Your task to perform on an android device: What's the news? Image 0: 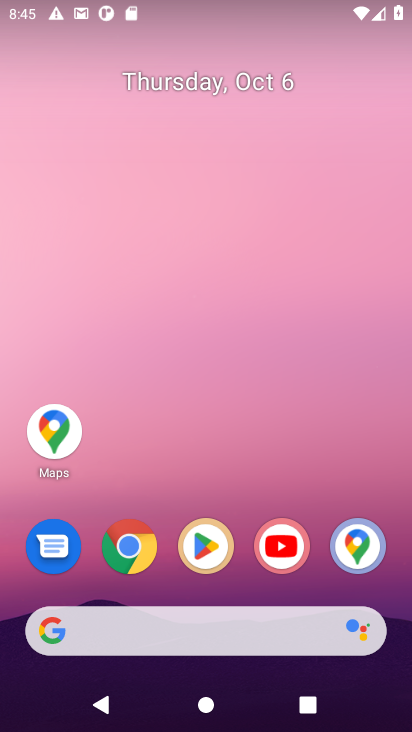
Step 0: click (134, 545)
Your task to perform on an android device: What's the news? Image 1: 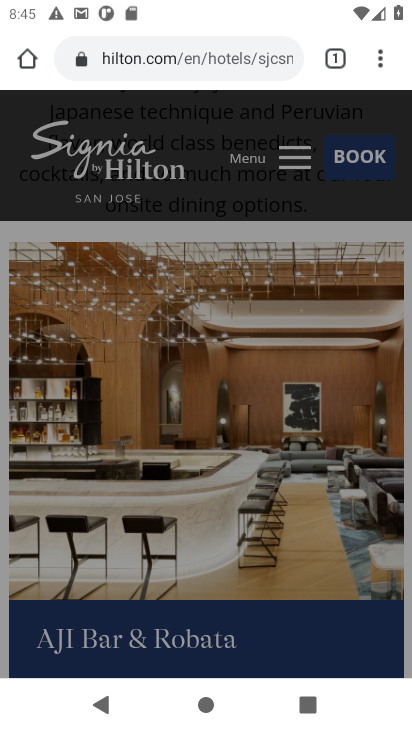
Step 1: click (199, 48)
Your task to perform on an android device: What's the news? Image 2: 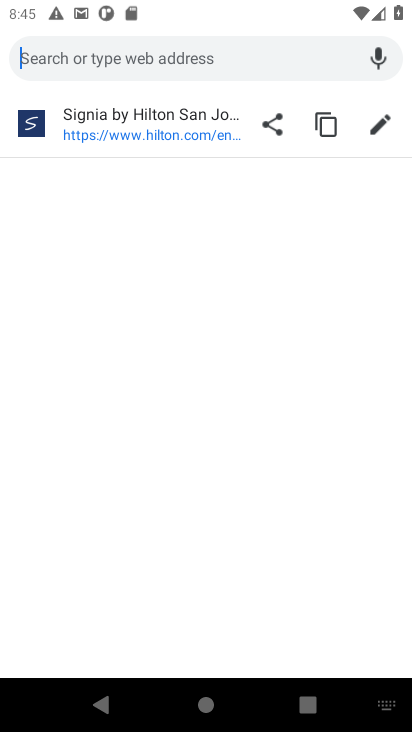
Step 2: type "What's the news?"
Your task to perform on an android device: What's the news? Image 3: 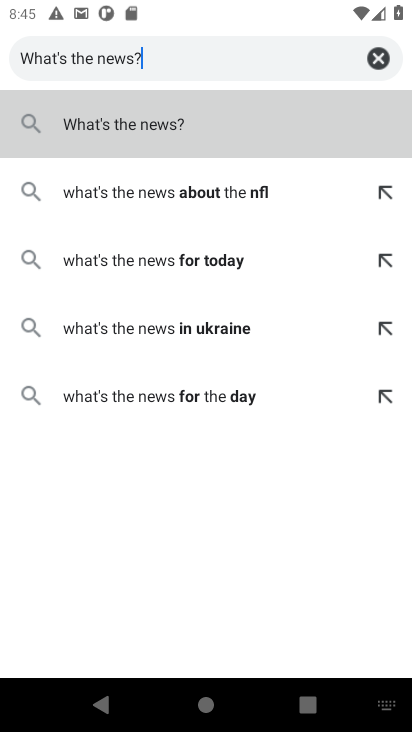
Step 3: click (112, 116)
Your task to perform on an android device: What's the news? Image 4: 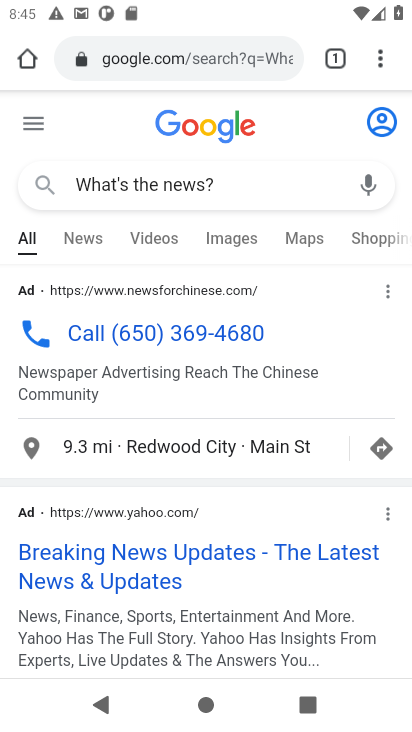
Step 4: click (96, 242)
Your task to perform on an android device: What's the news? Image 5: 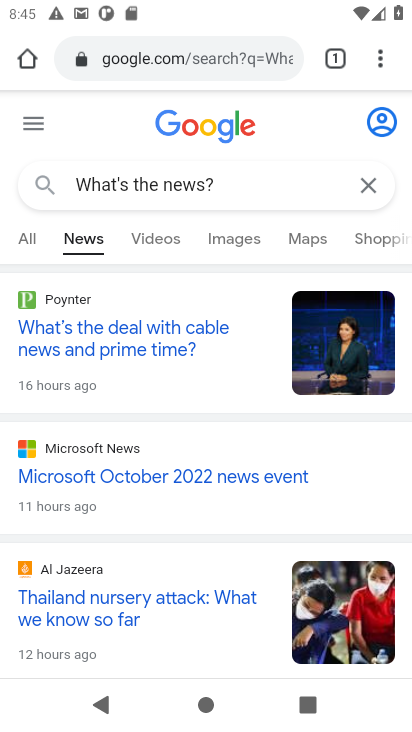
Step 5: click (88, 337)
Your task to perform on an android device: What's the news? Image 6: 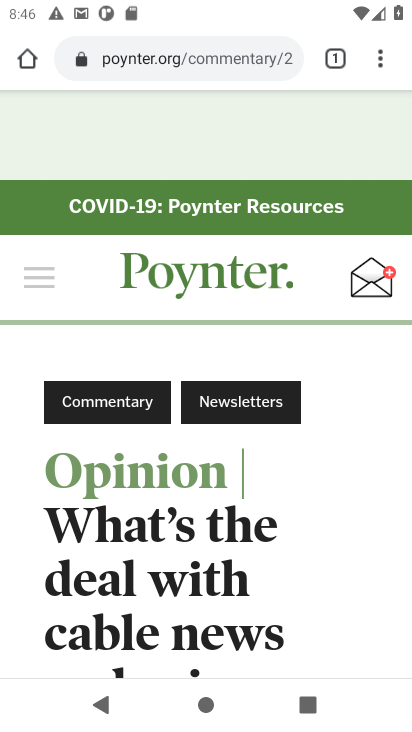
Step 6: task complete